Your task to perform on an android device: Open eBay Image 0: 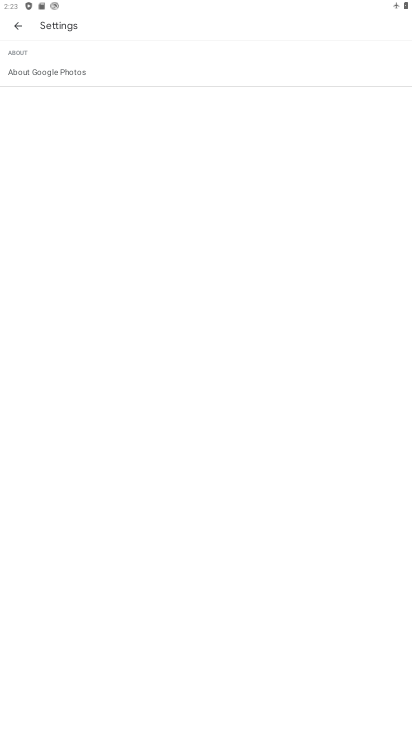
Step 0: press home button
Your task to perform on an android device: Open eBay Image 1: 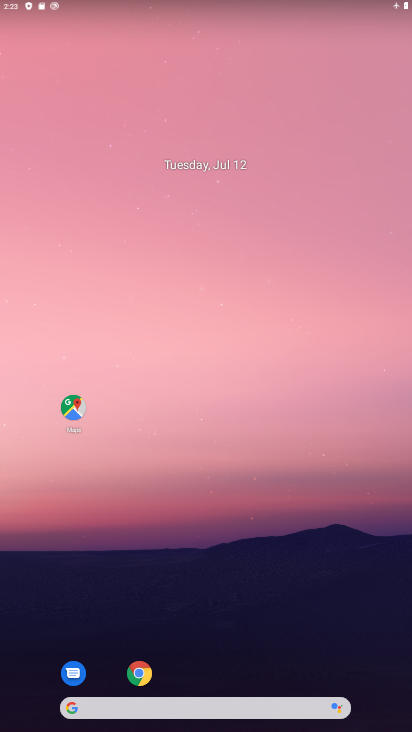
Step 1: click (139, 672)
Your task to perform on an android device: Open eBay Image 2: 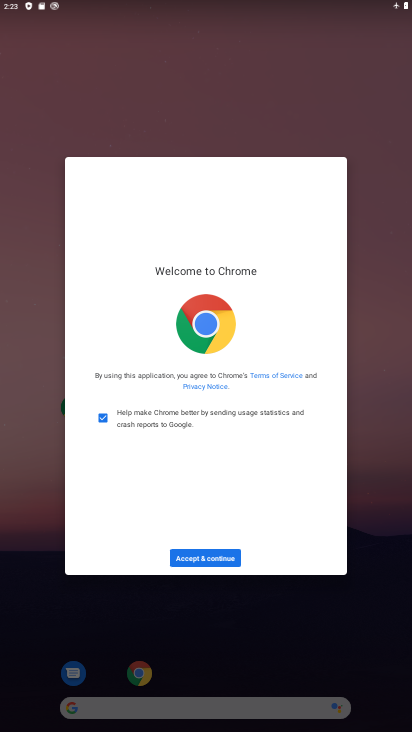
Step 2: click (175, 563)
Your task to perform on an android device: Open eBay Image 3: 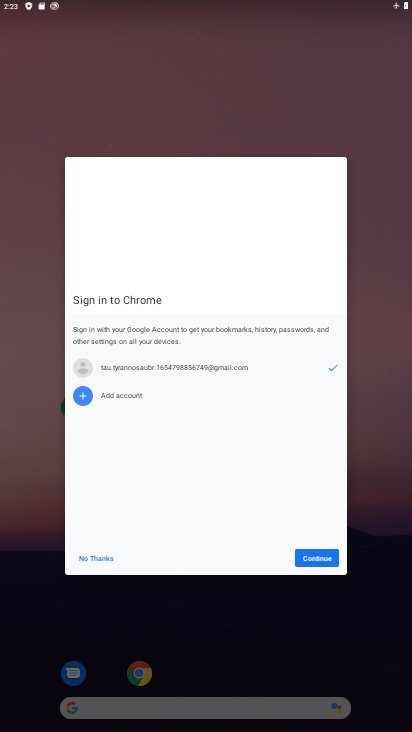
Step 3: click (329, 550)
Your task to perform on an android device: Open eBay Image 4: 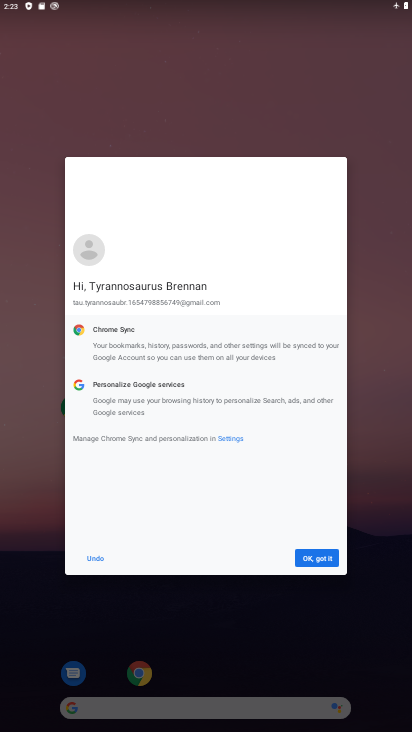
Step 4: click (329, 550)
Your task to perform on an android device: Open eBay Image 5: 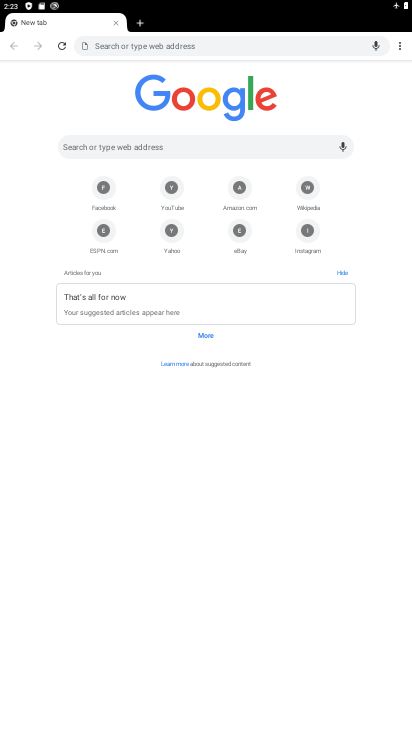
Step 5: click (153, 146)
Your task to perform on an android device: Open eBay Image 6: 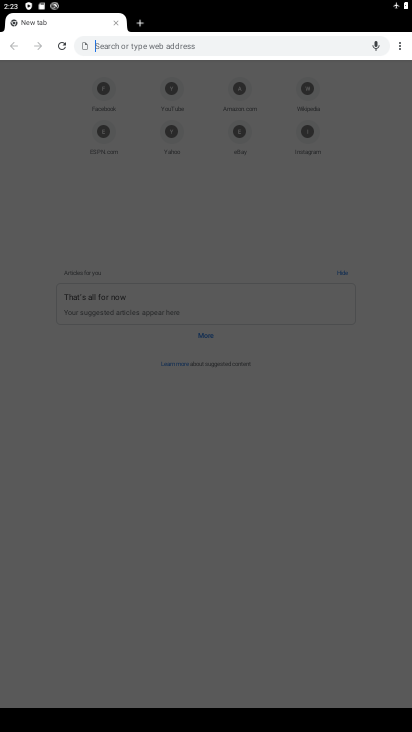
Step 6: type "ebay"
Your task to perform on an android device: Open eBay Image 7: 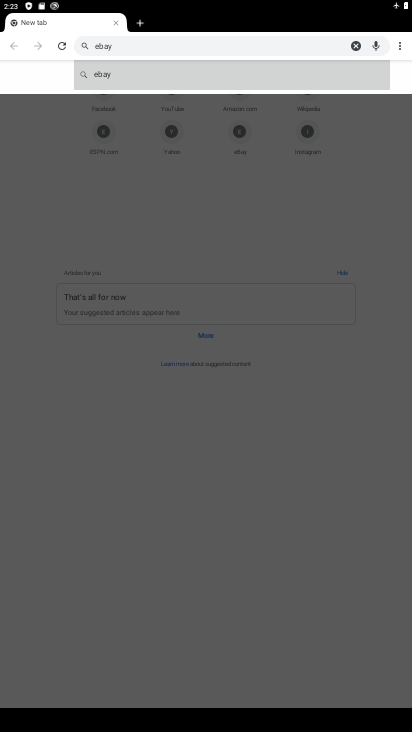
Step 7: click (122, 71)
Your task to perform on an android device: Open eBay Image 8: 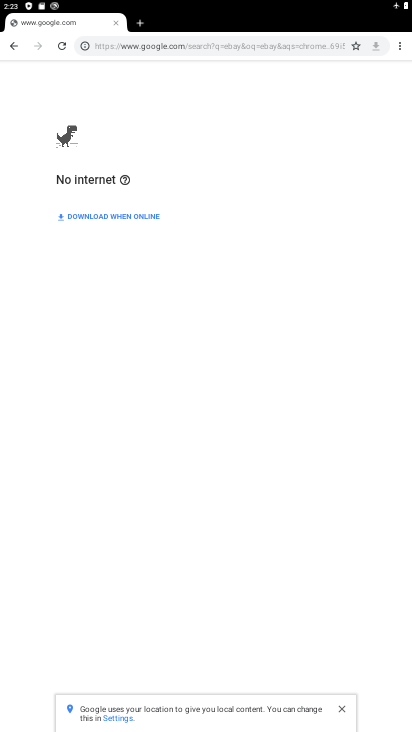
Step 8: task complete